Your task to perform on an android device: Open the map Image 0: 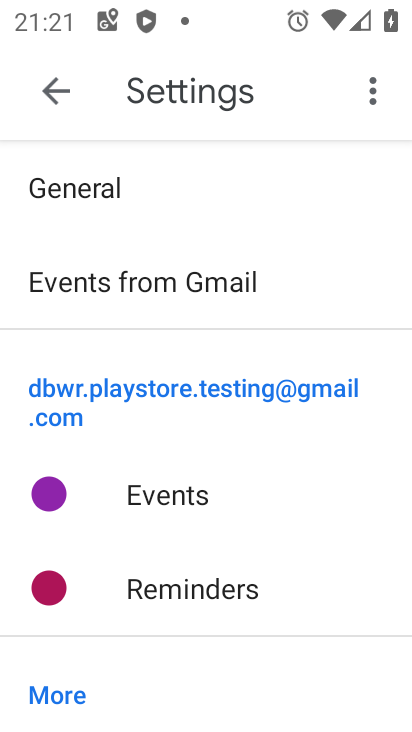
Step 0: press home button
Your task to perform on an android device: Open the map Image 1: 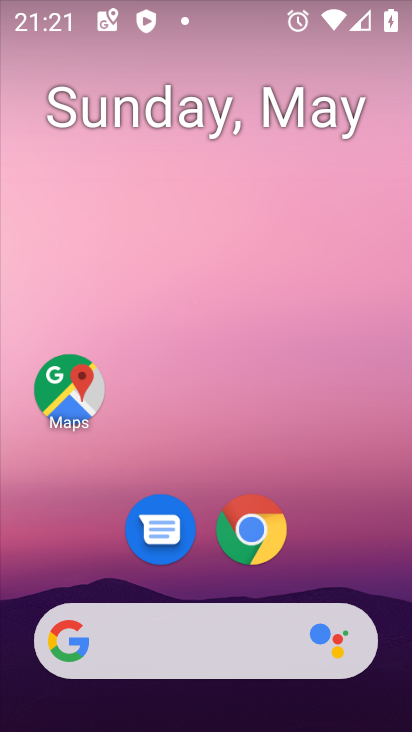
Step 1: click (64, 401)
Your task to perform on an android device: Open the map Image 2: 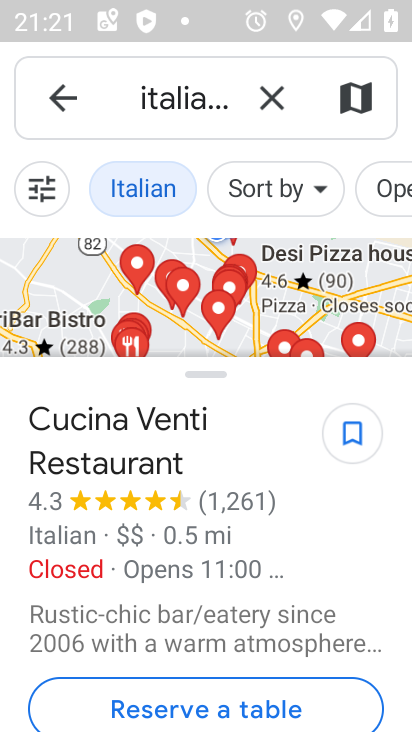
Step 2: task complete